Your task to perform on an android device: Go to Amazon Image 0: 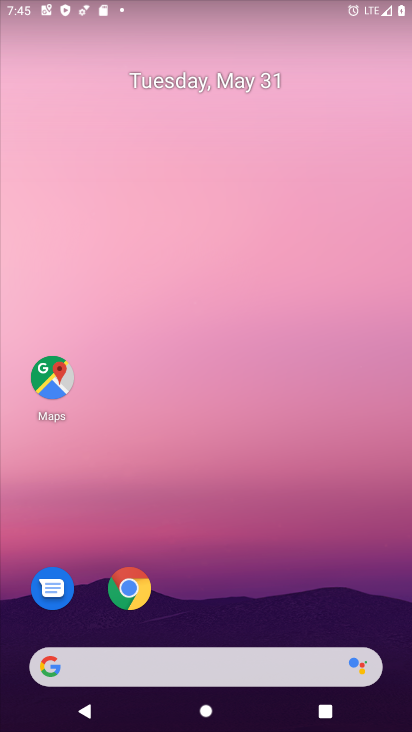
Step 0: click (130, 598)
Your task to perform on an android device: Go to Amazon Image 1: 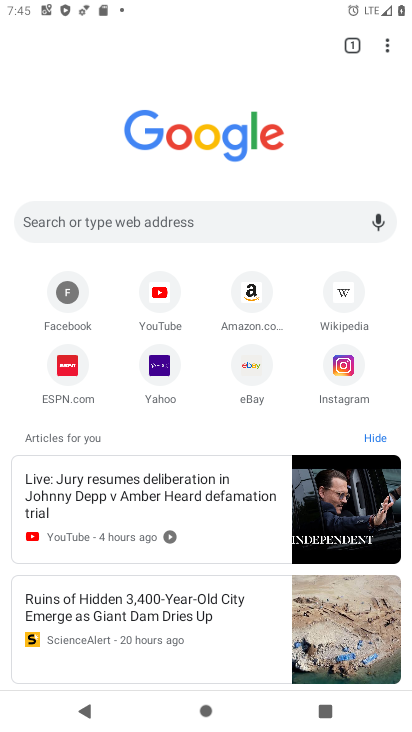
Step 1: click (135, 596)
Your task to perform on an android device: Go to Amazon Image 2: 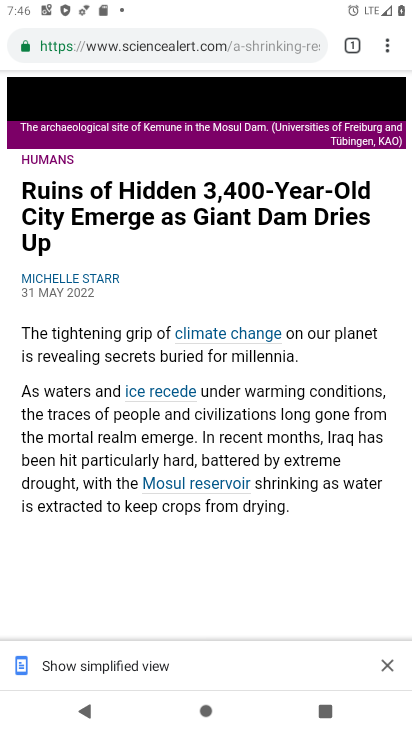
Step 2: press back button
Your task to perform on an android device: Go to Amazon Image 3: 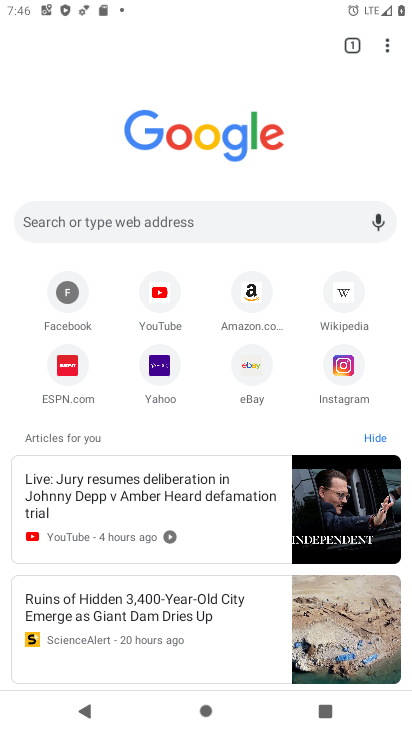
Step 3: click (253, 296)
Your task to perform on an android device: Go to Amazon Image 4: 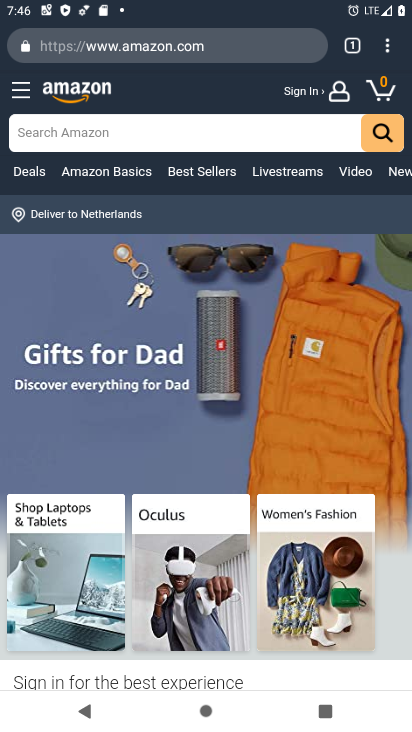
Step 4: task complete